Your task to perform on an android device: search for starred emails in the gmail app Image 0: 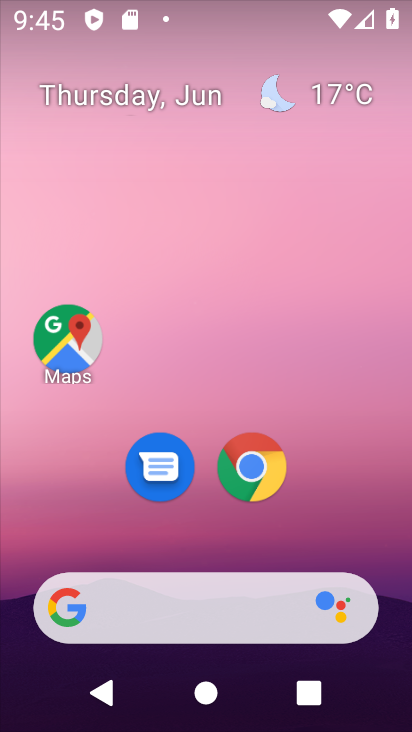
Step 0: drag from (364, 484) to (332, 20)
Your task to perform on an android device: search for starred emails in the gmail app Image 1: 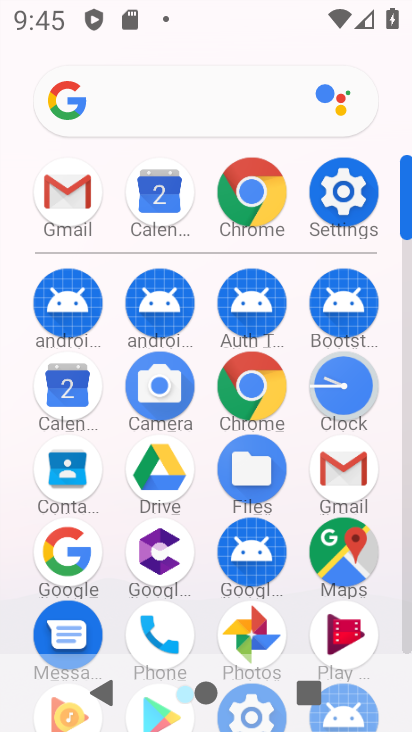
Step 1: click (87, 193)
Your task to perform on an android device: search for starred emails in the gmail app Image 2: 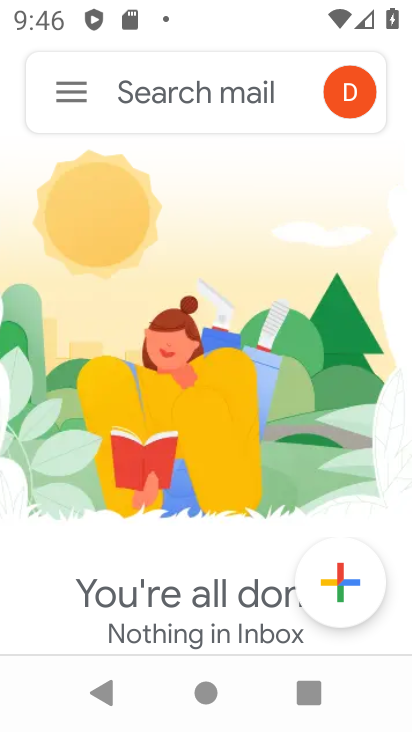
Step 2: click (69, 114)
Your task to perform on an android device: search for starred emails in the gmail app Image 3: 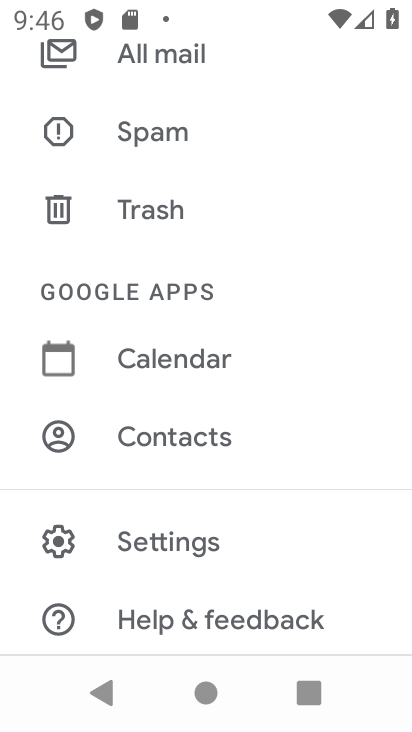
Step 3: drag from (158, 153) to (227, 594)
Your task to perform on an android device: search for starred emails in the gmail app Image 4: 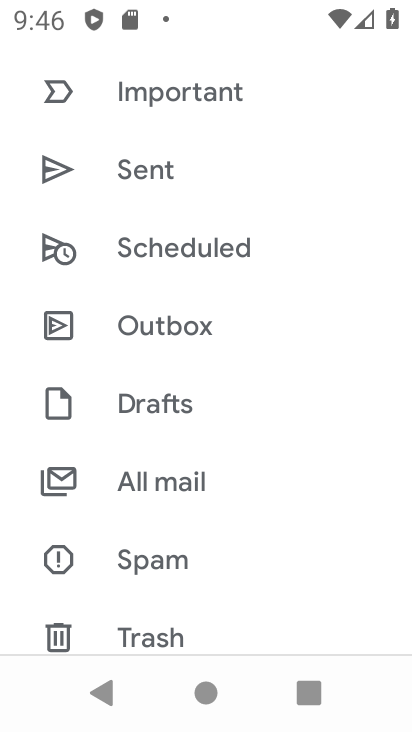
Step 4: drag from (212, 164) to (272, 630)
Your task to perform on an android device: search for starred emails in the gmail app Image 5: 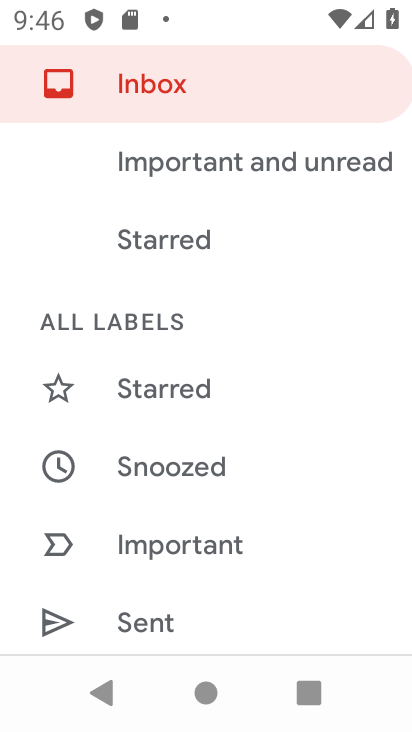
Step 5: click (195, 262)
Your task to perform on an android device: search for starred emails in the gmail app Image 6: 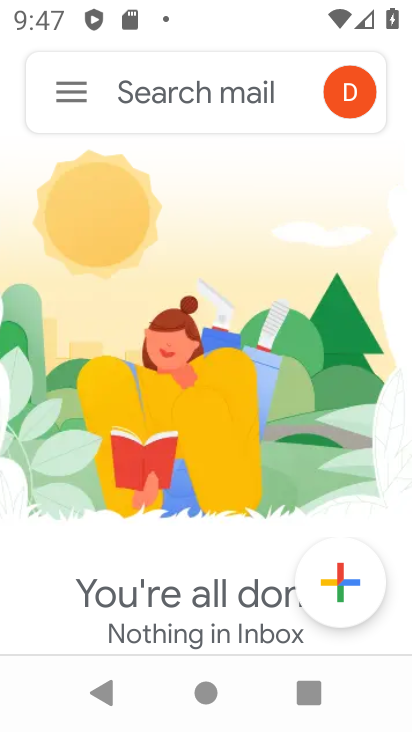
Step 6: click (58, 102)
Your task to perform on an android device: search for starred emails in the gmail app Image 7: 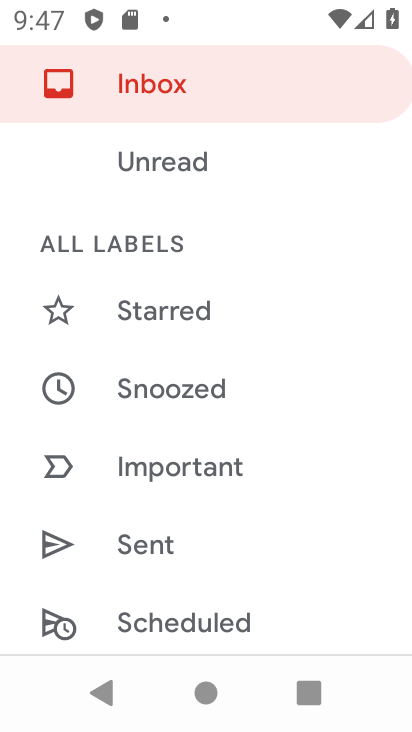
Step 7: click (115, 312)
Your task to perform on an android device: search for starred emails in the gmail app Image 8: 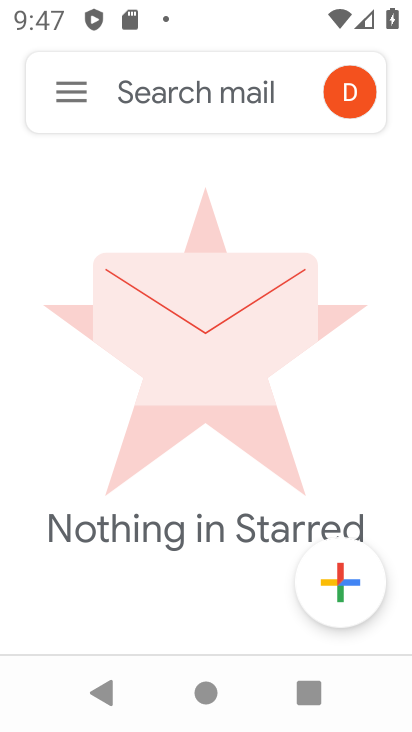
Step 8: task complete